Your task to perform on an android device: turn pop-ups on in chrome Image 0: 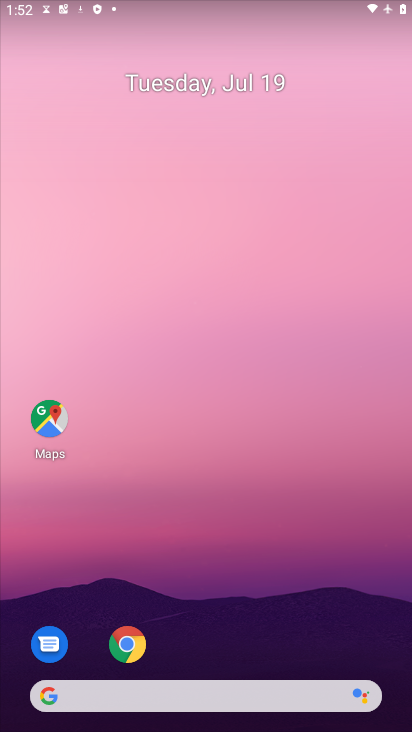
Step 0: drag from (270, 535) to (233, 5)
Your task to perform on an android device: turn pop-ups on in chrome Image 1: 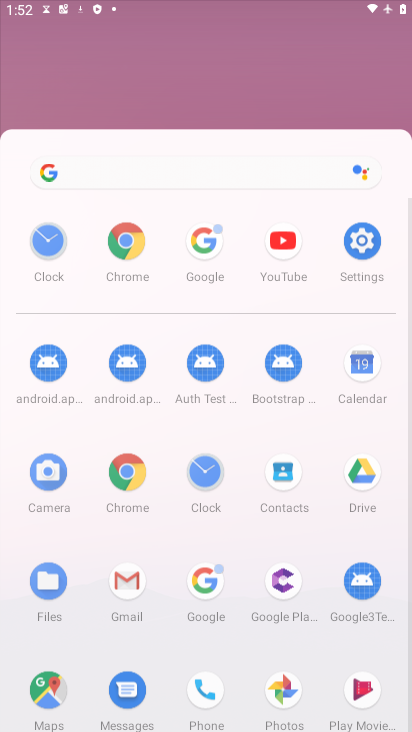
Step 1: drag from (272, 596) to (127, 6)
Your task to perform on an android device: turn pop-ups on in chrome Image 2: 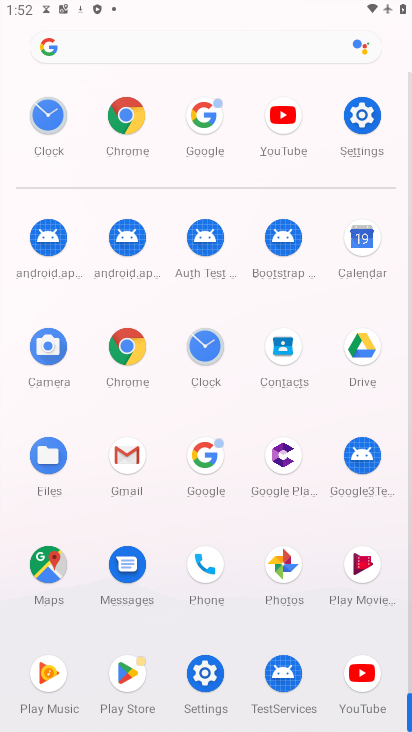
Step 2: click (132, 119)
Your task to perform on an android device: turn pop-ups on in chrome Image 3: 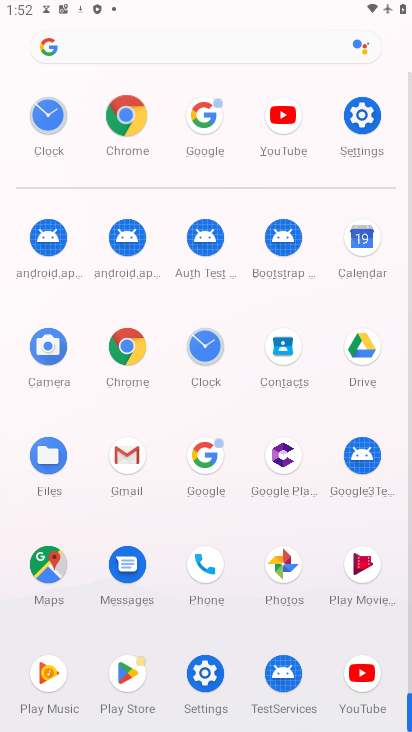
Step 3: click (126, 116)
Your task to perform on an android device: turn pop-ups on in chrome Image 4: 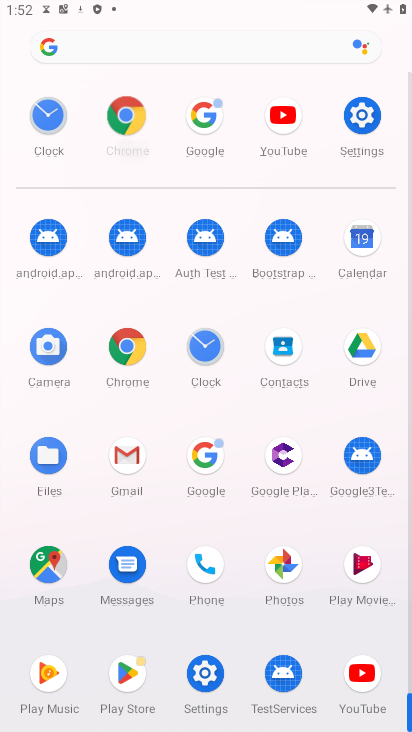
Step 4: click (126, 116)
Your task to perform on an android device: turn pop-ups on in chrome Image 5: 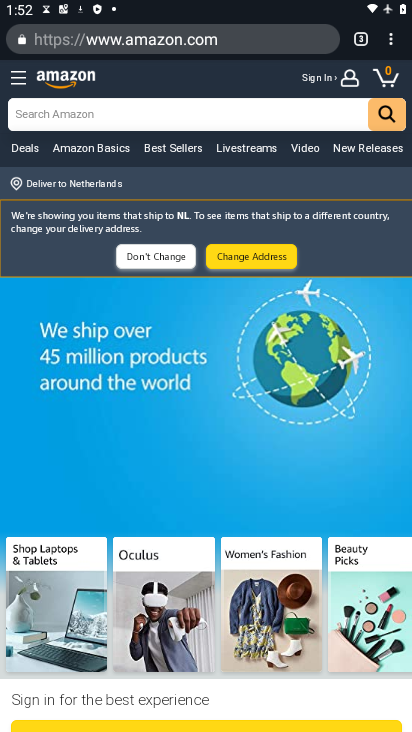
Step 5: drag from (387, 35) to (261, 468)
Your task to perform on an android device: turn pop-ups on in chrome Image 6: 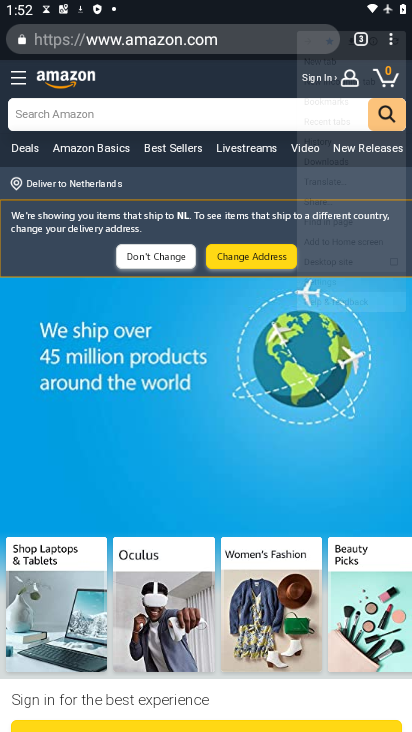
Step 6: click (260, 468)
Your task to perform on an android device: turn pop-ups on in chrome Image 7: 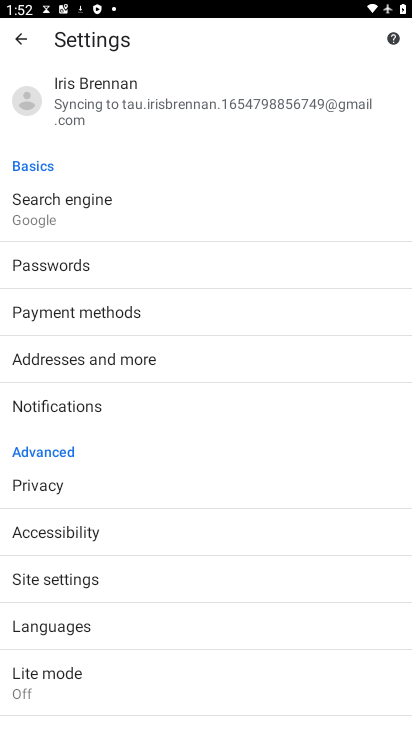
Step 7: click (47, 571)
Your task to perform on an android device: turn pop-ups on in chrome Image 8: 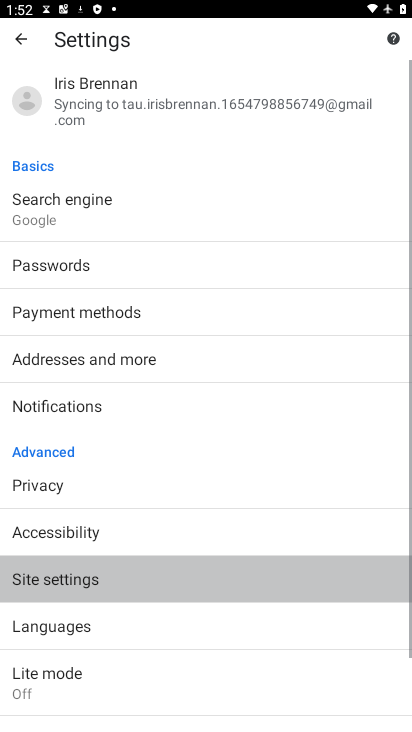
Step 8: click (63, 595)
Your task to perform on an android device: turn pop-ups on in chrome Image 9: 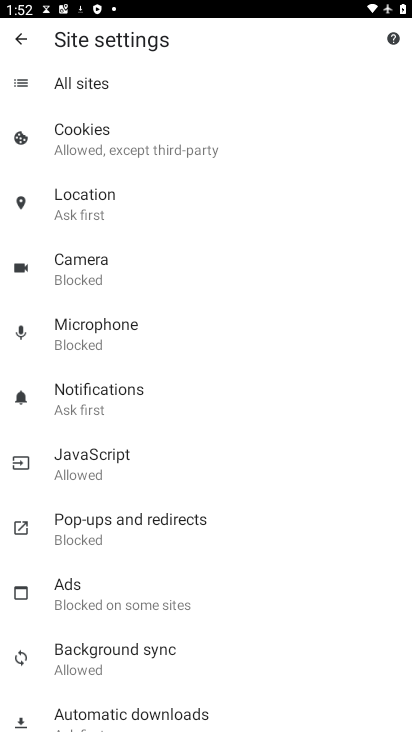
Step 9: click (86, 527)
Your task to perform on an android device: turn pop-ups on in chrome Image 10: 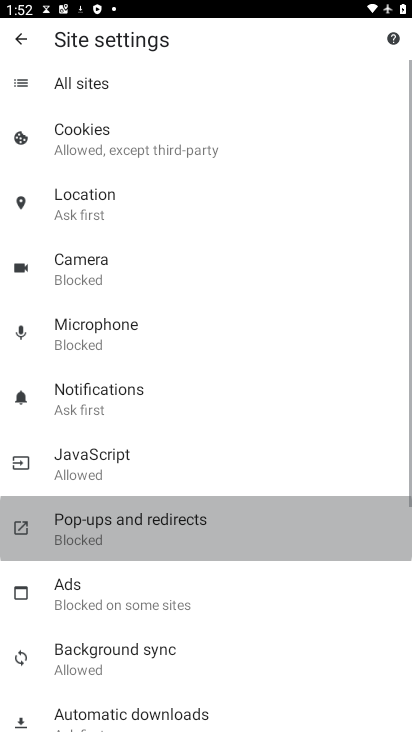
Step 10: click (86, 527)
Your task to perform on an android device: turn pop-ups on in chrome Image 11: 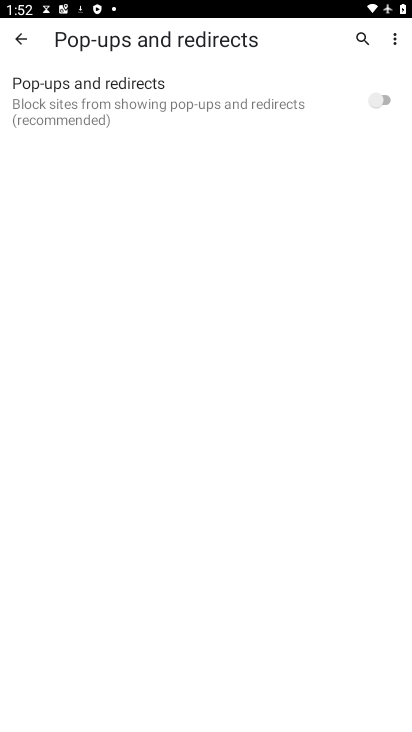
Step 11: click (379, 99)
Your task to perform on an android device: turn pop-ups on in chrome Image 12: 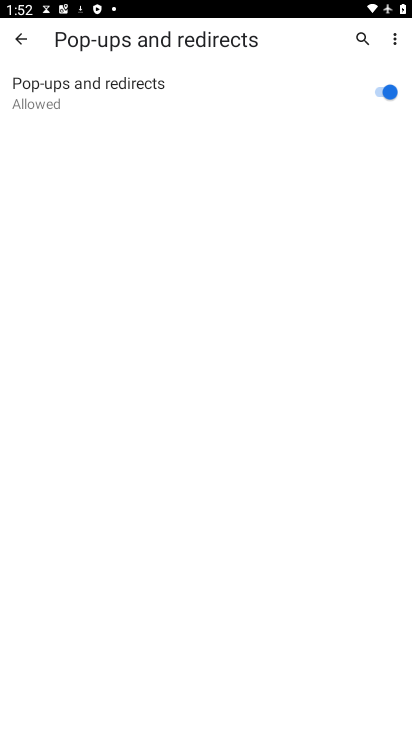
Step 12: task complete